Your task to perform on an android device: toggle data saver in the chrome app Image 0: 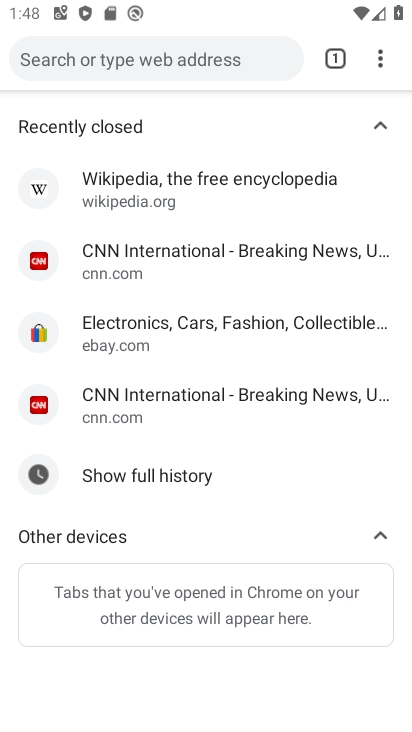
Step 0: click (369, 65)
Your task to perform on an android device: toggle data saver in the chrome app Image 1: 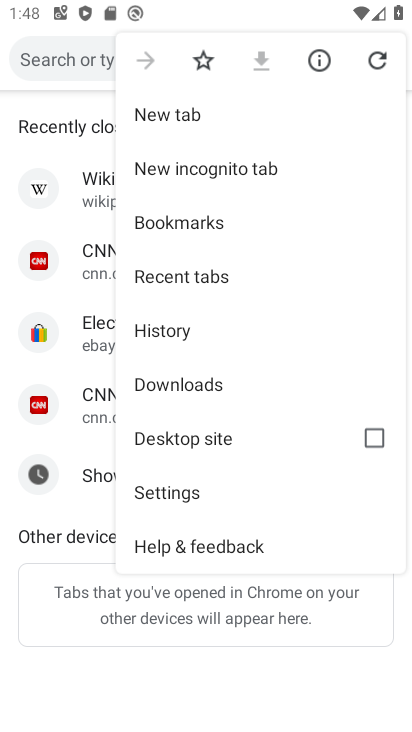
Step 1: click (194, 481)
Your task to perform on an android device: toggle data saver in the chrome app Image 2: 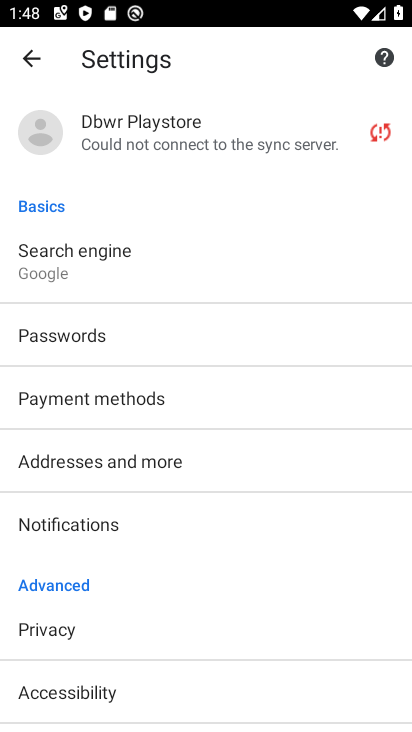
Step 2: drag from (105, 632) to (98, 464)
Your task to perform on an android device: toggle data saver in the chrome app Image 3: 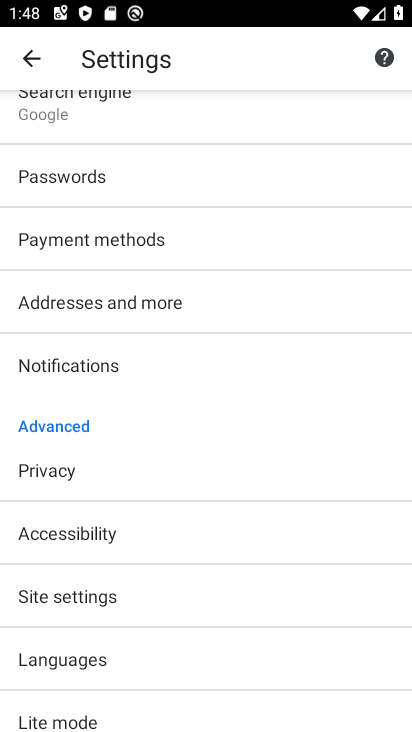
Step 3: click (96, 720)
Your task to perform on an android device: toggle data saver in the chrome app Image 4: 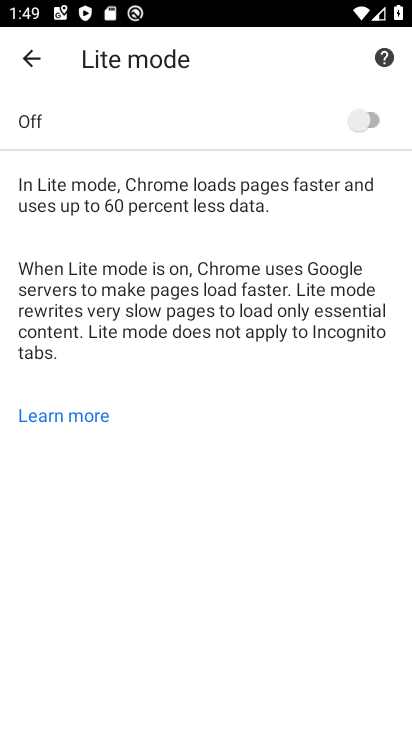
Step 4: click (384, 119)
Your task to perform on an android device: toggle data saver in the chrome app Image 5: 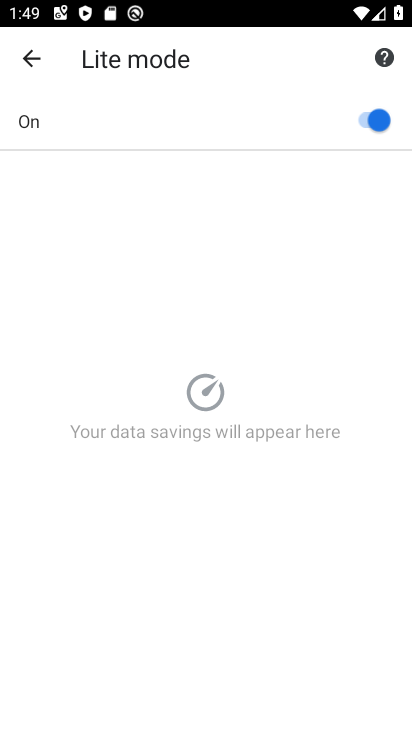
Step 5: task complete